Your task to perform on an android device: turn on improve location accuracy Image 0: 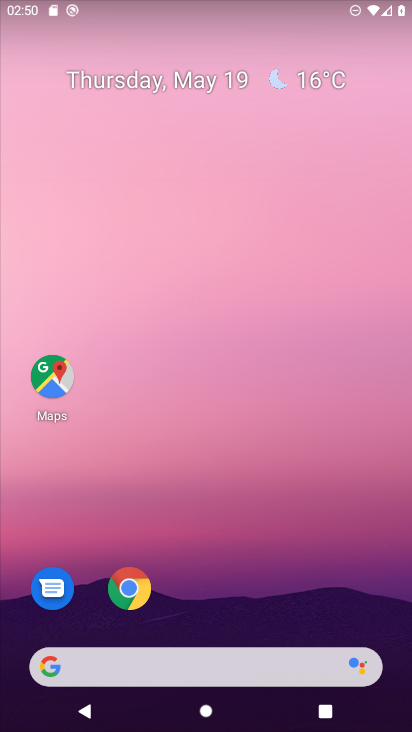
Step 0: drag from (301, 632) to (294, 11)
Your task to perform on an android device: turn on improve location accuracy Image 1: 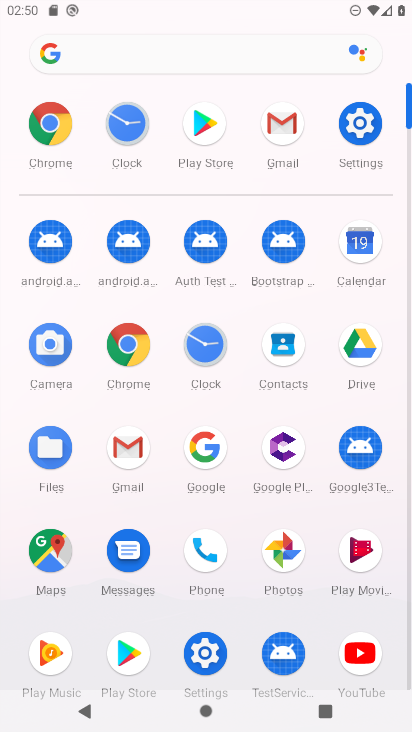
Step 1: click (355, 123)
Your task to perform on an android device: turn on improve location accuracy Image 2: 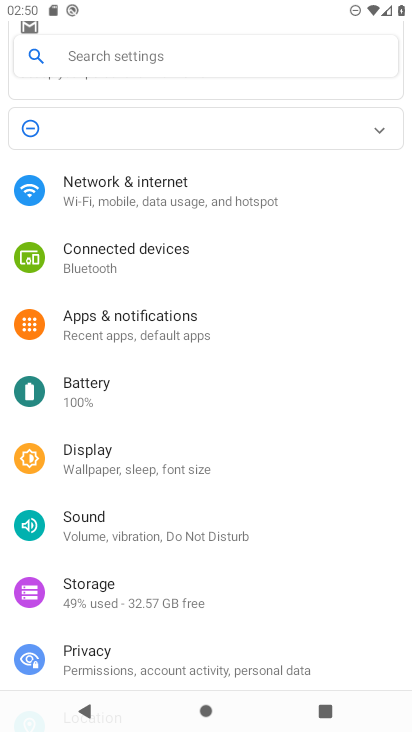
Step 2: drag from (302, 577) to (320, 275)
Your task to perform on an android device: turn on improve location accuracy Image 3: 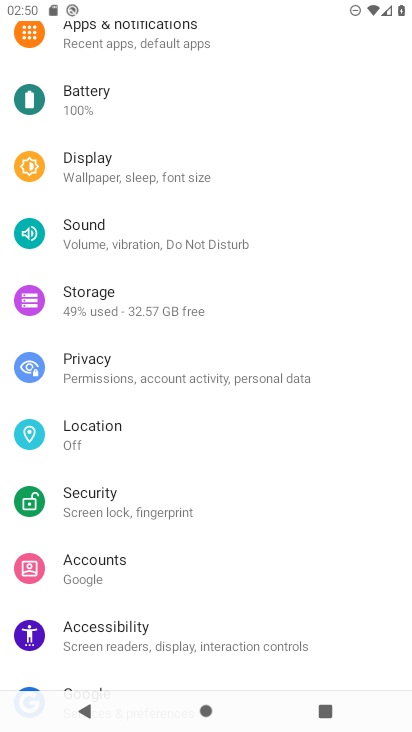
Step 3: click (78, 435)
Your task to perform on an android device: turn on improve location accuracy Image 4: 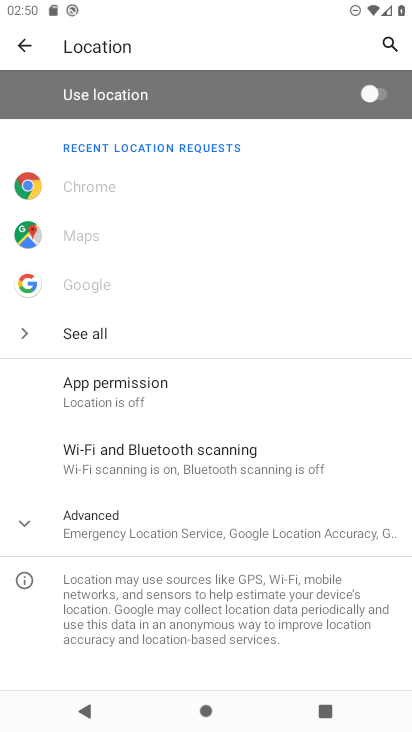
Step 4: click (14, 527)
Your task to perform on an android device: turn on improve location accuracy Image 5: 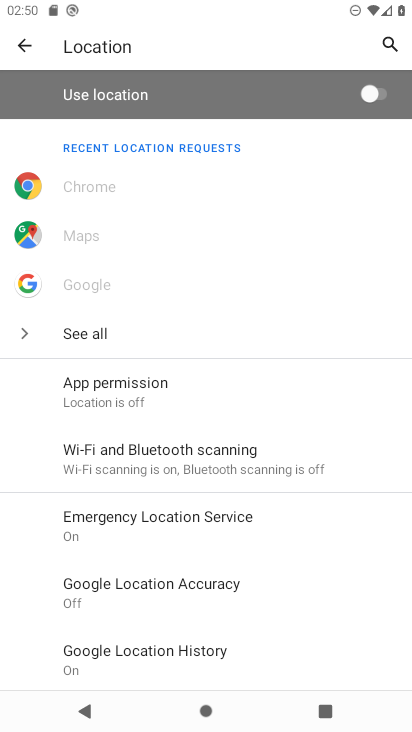
Step 5: click (99, 587)
Your task to perform on an android device: turn on improve location accuracy Image 6: 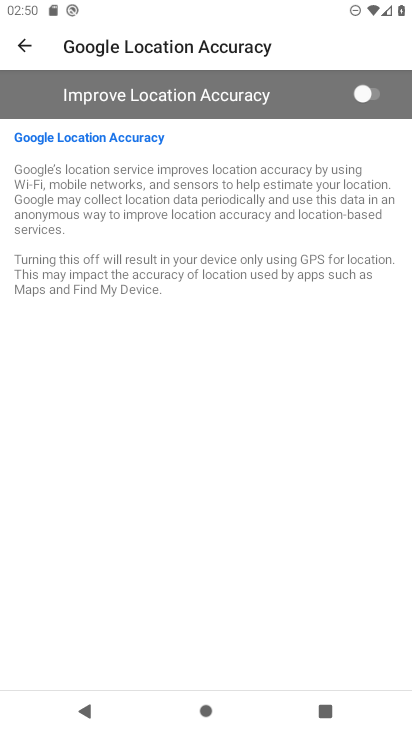
Step 6: click (353, 90)
Your task to perform on an android device: turn on improve location accuracy Image 7: 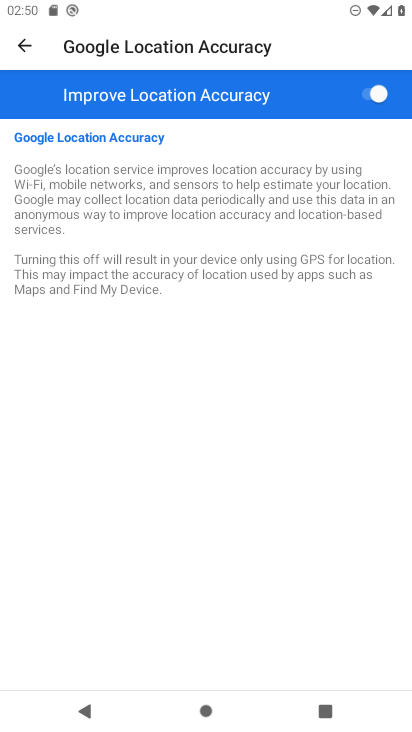
Step 7: task complete